Your task to perform on an android device: Go to network settings Image 0: 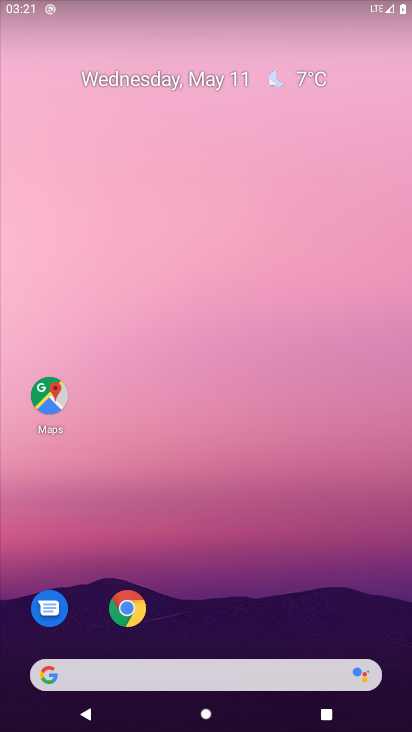
Step 0: drag from (199, 645) to (278, 2)
Your task to perform on an android device: Go to network settings Image 1: 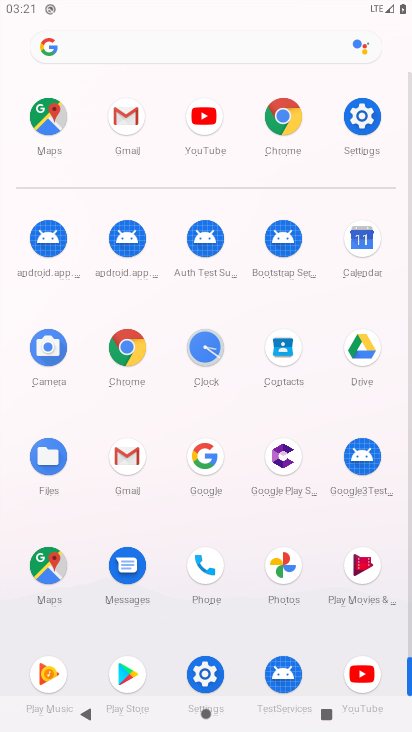
Step 1: click (366, 112)
Your task to perform on an android device: Go to network settings Image 2: 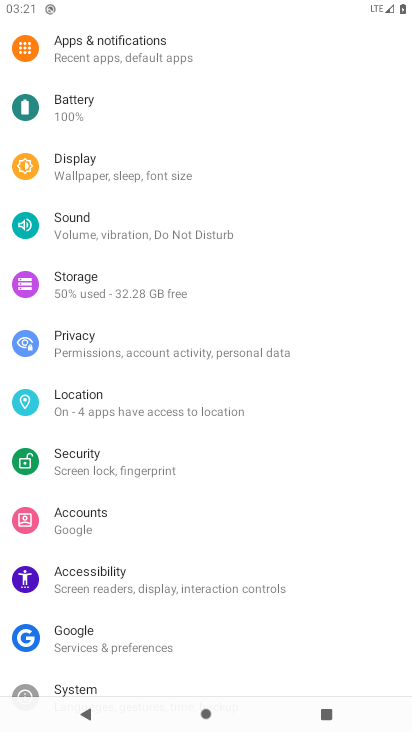
Step 2: drag from (153, 106) to (181, 552)
Your task to perform on an android device: Go to network settings Image 3: 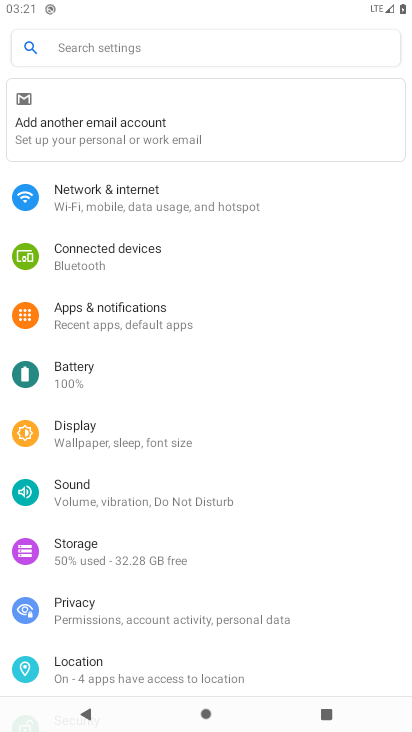
Step 3: click (165, 187)
Your task to perform on an android device: Go to network settings Image 4: 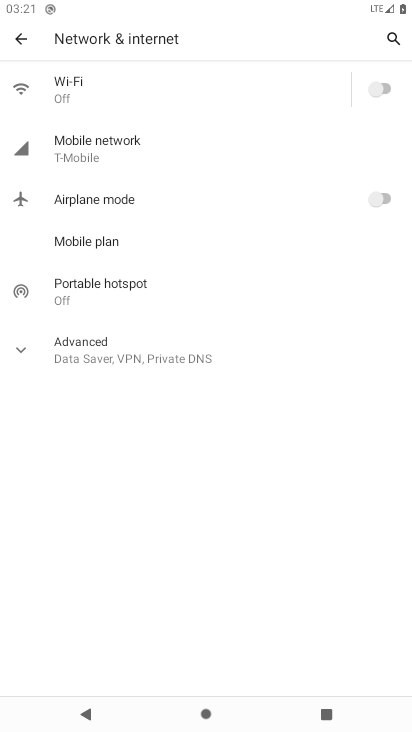
Step 4: click (26, 345)
Your task to perform on an android device: Go to network settings Image 5: 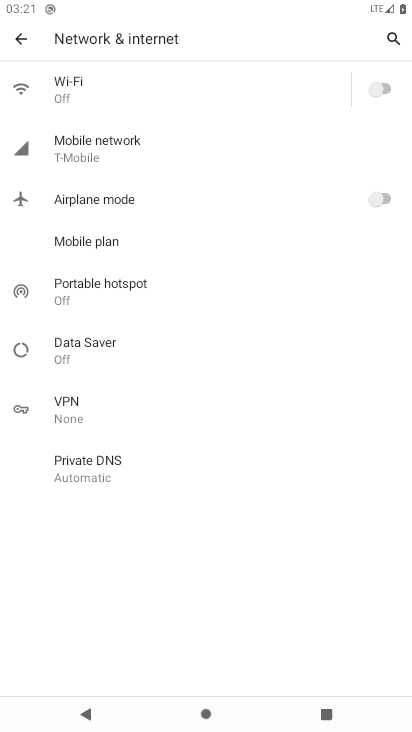
Step 5: task complete